Your task to perform on an android device: Search for alienware aurora on ebay.com, select the first entry, and add it to the cart. Image 0: 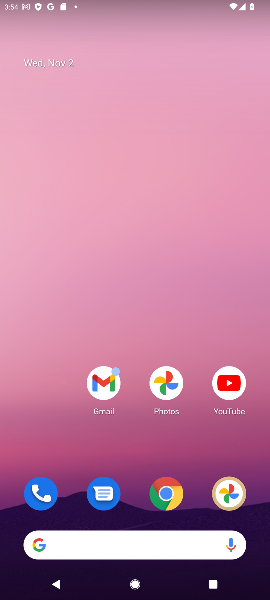
Step 0: drag from (80, 496) to (157, 48)
Your task to perform on an android device: Search for alienware aurora on ebay.com, select the first entry, and add it to the cart. Image 1: 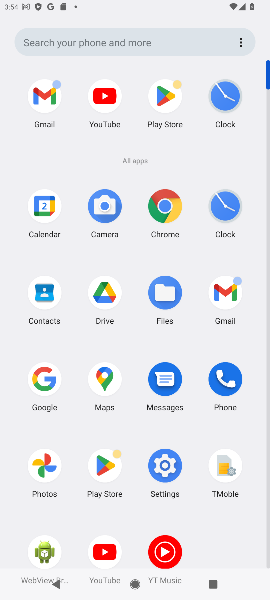
Step 1: click (49, 386)
Your task to perform on an android device: Search for alienware aurora on ebay.com, select the first entry, and add it to the cart. Image 2: 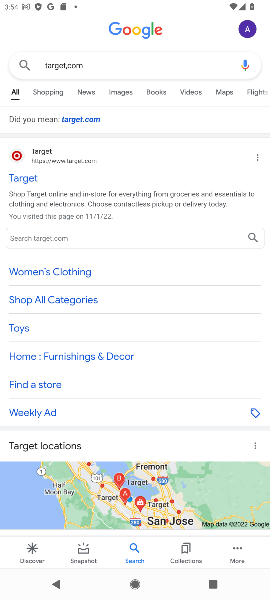
Step 2: click (87, 64)
Your task to perform on an android device: Search for alienware aurora on ebay.com, select the first entry, and add it to the cart. Image 3: 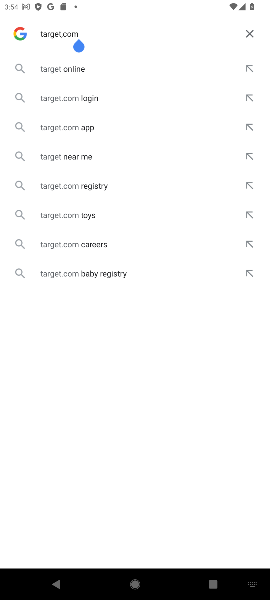
Step 3: click (249, 32)
Your task to perform on an android device: Search for alienware aurora on ebay.com, select the first entry, and add it to the cart. Image 4: 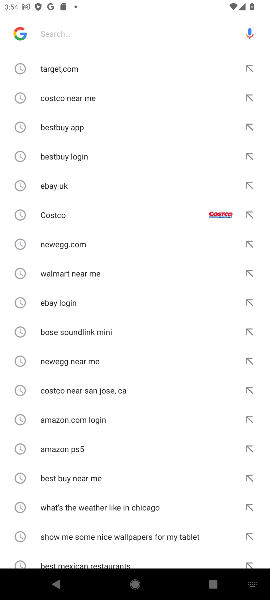
Step 4: click (46, 25)
Your task to perform on an android device: Search for alienware aurora on ebay.com, select the first entry, and add it to the cart. Image 5: 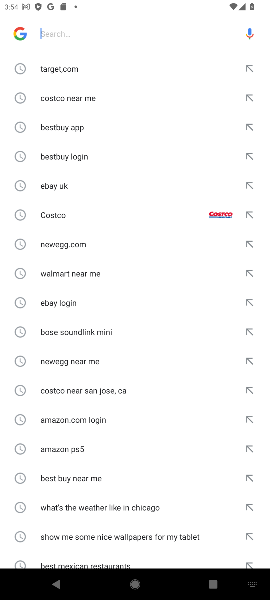
Step 5: type "ebay "
Your task to perform on an android device: Search for alienware aurora on ebay.com, select the first entry, and add it to the cart. Image 6: 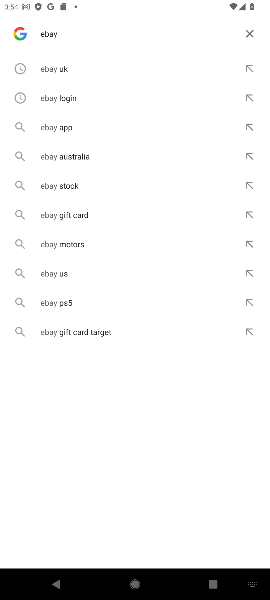
Step 6: click (65, 65)
Your task to perform on an android device: Search for alienware aurora on ebay.com, select the first entry, and add it to the cart. Image 7: 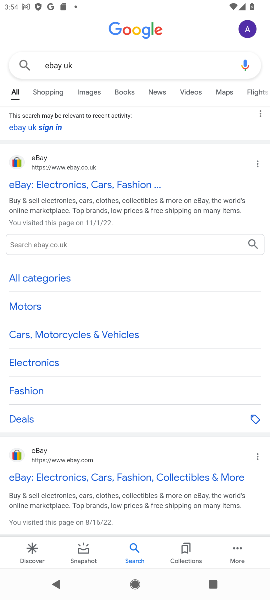
Step 7: click (13, 162)
Your task to perform on an android device: Search for alienware aurora on ebay.com, select the first entry, and add it to the cart. Image 8: 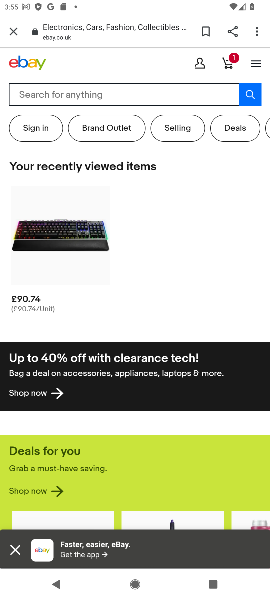
Step 8: click (60, 87)
Your task to perform on an android device: Search for alienware aurora on ebay.com, select the first entry, and add it to the cart. Image 9: 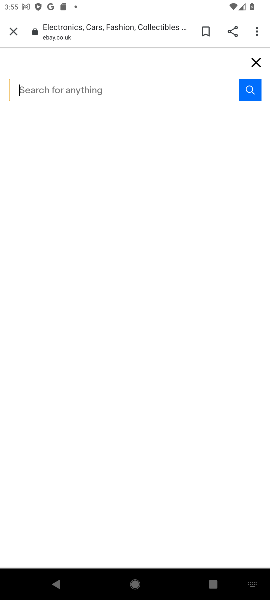
Step 9: type "alienware aurora  "
Your task to perform on an android device: Search for alienware aurora on ebay.com, select the first entry, and add it to the cart. Image 10: 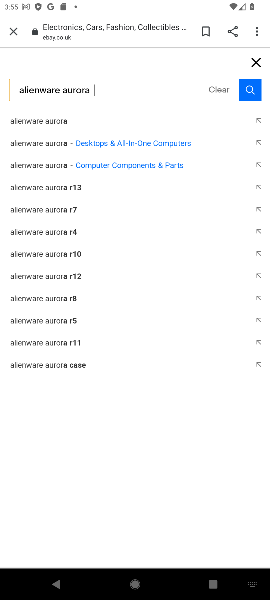
Step 10: click (40, 124)
Your task to perform on an android device: Search for alienware aurora on ebay.com, select the first entry, and add it to the cart. Image 11: 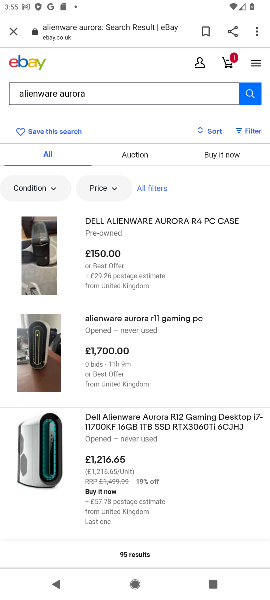
Step 11: click (93, 234)
Your task to perform on an android device: Search for alienware aurora on ebay.com, select the first entry, and add it to the cart. Image 12: 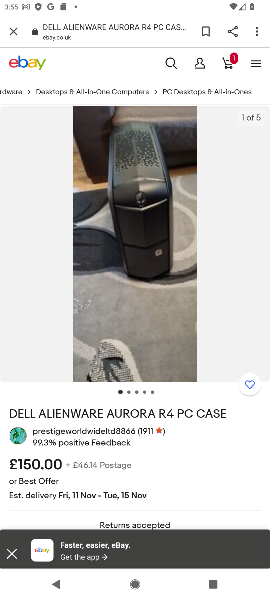
Step 12: drag from (142, 500) to (163, 273)
Your task to perform on an android device: Search for alienware aurora on ebay.com, select the first entry, and add it to the cart. Image 13: 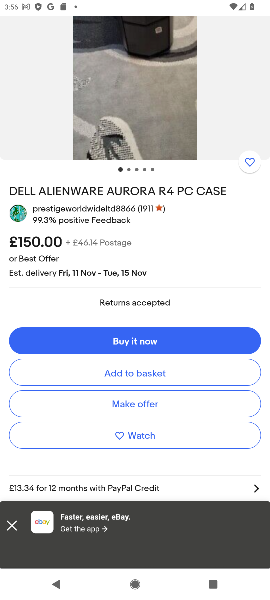
Step 13: click (121, 373)
Your task to perform on an android device: Search for alienware aurora on ebay.com, select the first entry, and add it to the cart. Image 14: 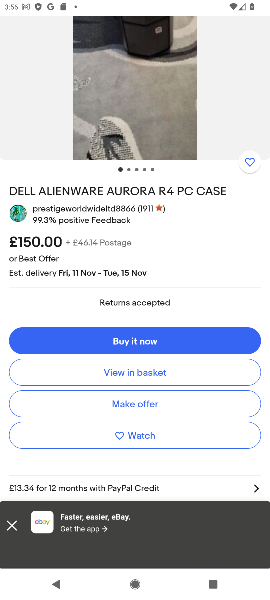
Step 14: task complete